Your task to perform on an android device: Go to accessibility settings Image 0: 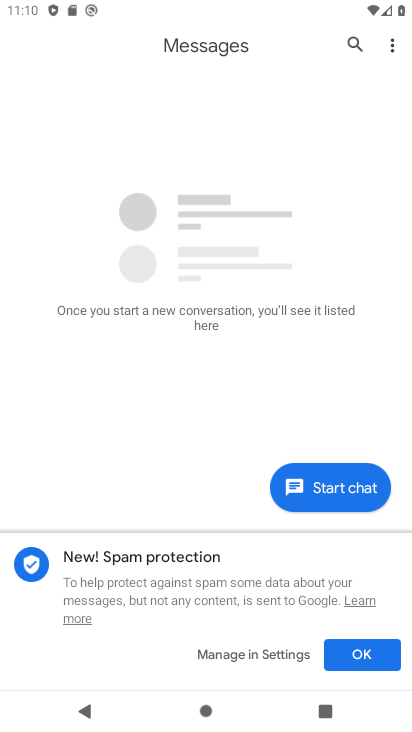
Step 0: press home button
Your task to perform on an android device: Go to accessibility settings Image 1: 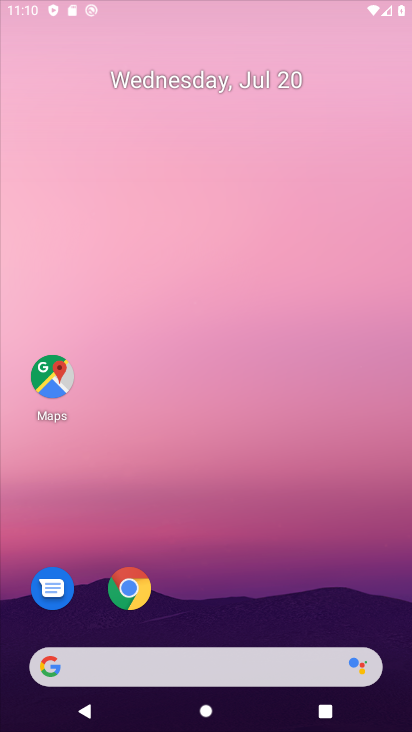
Step 1: drag from (265, 388) to (288, 50)
Your task to perform on an android device: Go to accessibility settings Image 2: 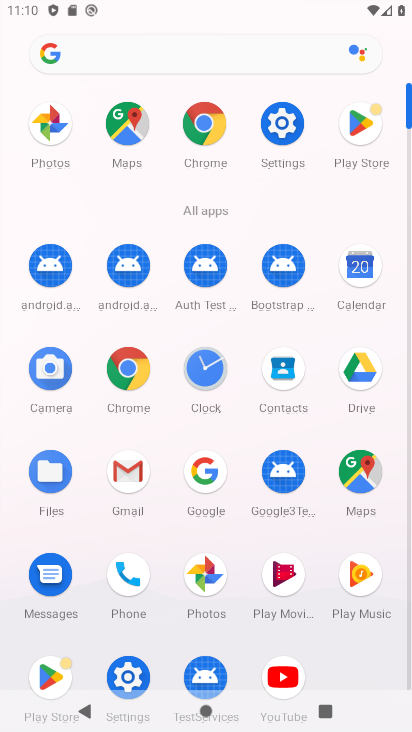
Step 2: click (282, 118)
Your task to perform on an android device: Go to accessibility settings Image 3: 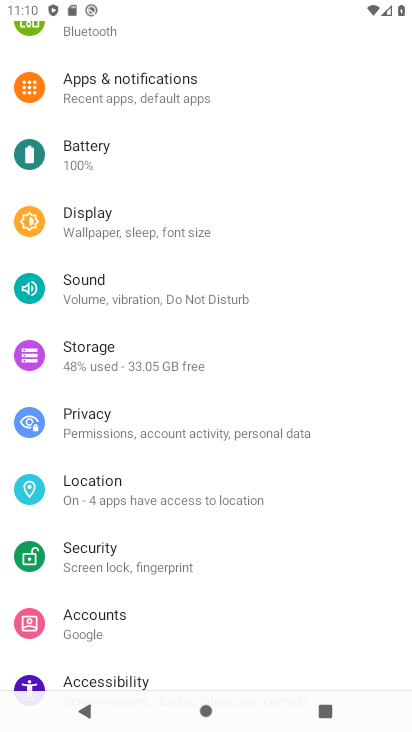
Step 3: click (131, 679)
Your task to perform on an android device: Go to accessibility settings Image 4: 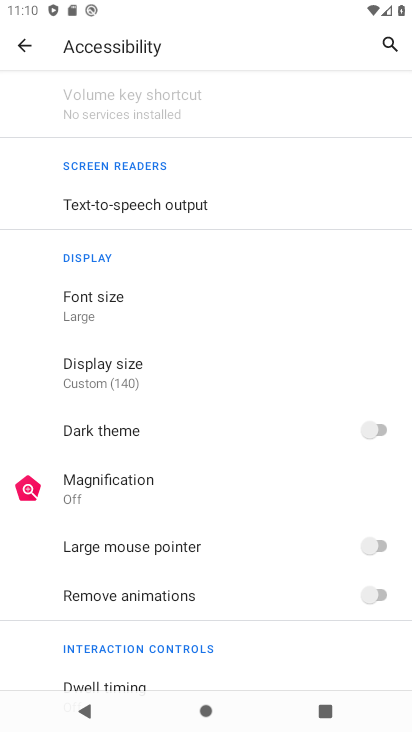
Step 4: task complete